Your task to perform on an android device: Open calendar and show me the fourth week of next month Image 0: 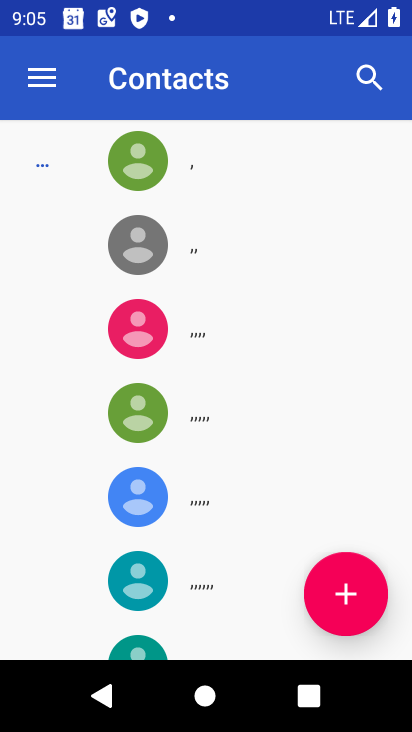
Step 0: press home button
Your task to perform on an android device: Open calendar and show me the fourth week of next month Image 1: 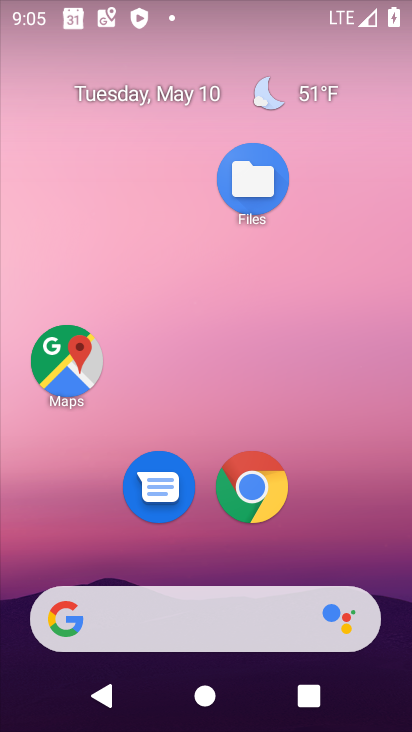
Step 1: drag from (208, 549) to (185, 42)
Your task to perform on an android device: Open calendar and show me the fourth week of next month Image 2: 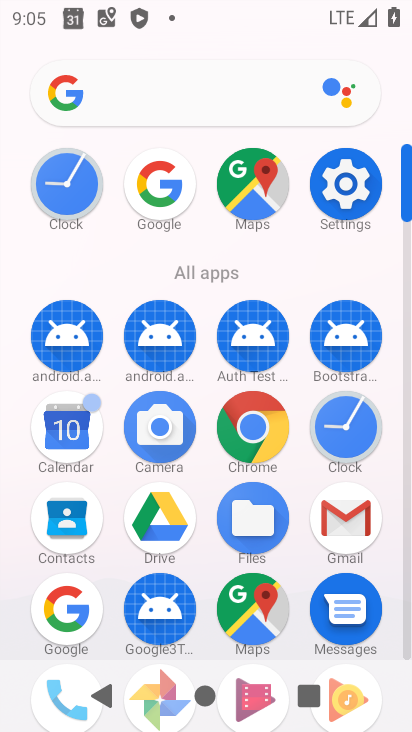
Step 2: click (70, 429)
Your task to perform on an android device: Open calendar and show me the fourth week of next month Image 3: 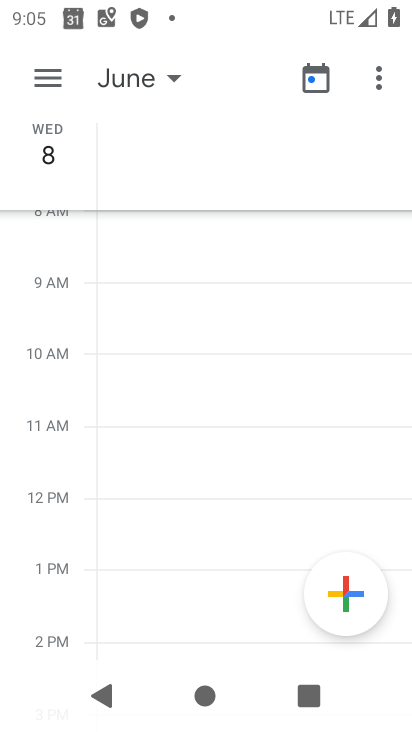
Step 3: click (170, 81)
Your task to perform on an android device: Open calendar and show me the fourth week of next month Image 4: 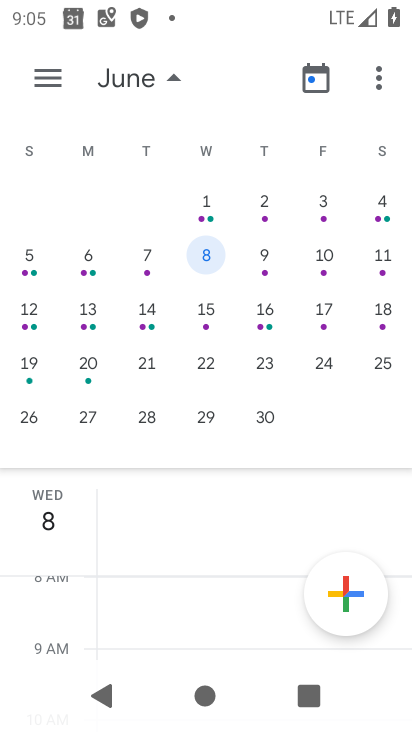
Step 4: click (204, 364)
Your task to perform on an android device: Open calendar and show me the fourth week of next month Image 5: 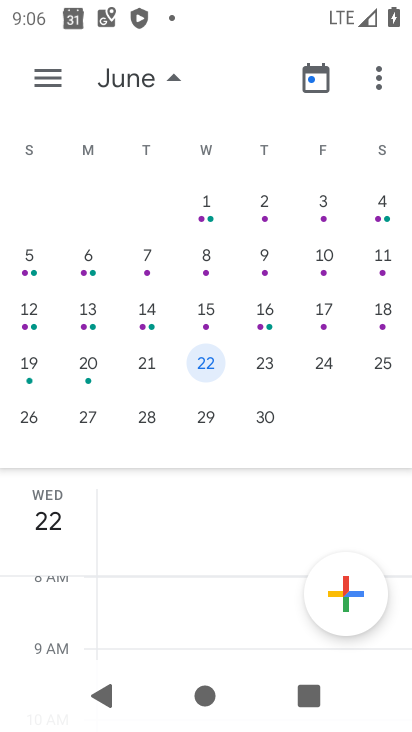
Step 5: task complete